Your task to perform on an android device: What is the recent news? Image 0: 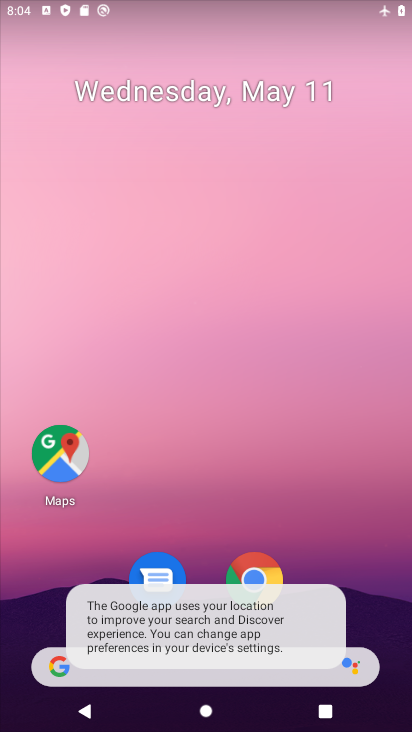
Step 0: click (227, 684)
Your task to perform on an android device: What is the recent news? Image 1: 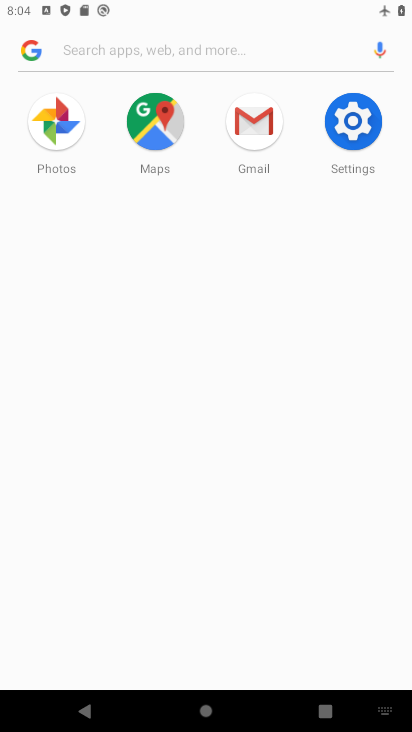
Step 1: type "recent news"
Your task to perform on an android device: What is the recent news? Image 2: 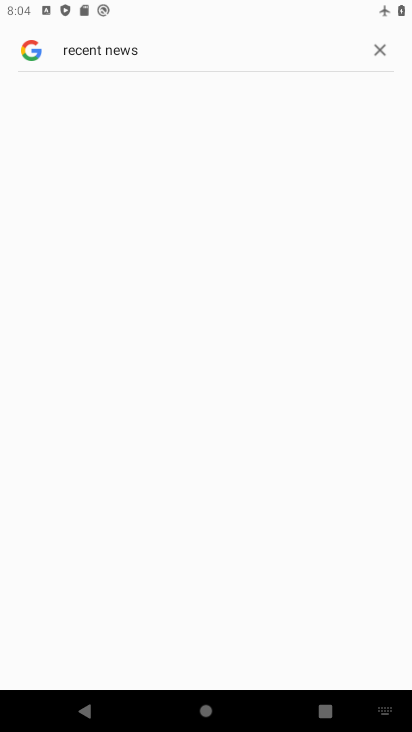
Step 2: task complete